Your task to perform on an android device: Open sound settings Image 0: 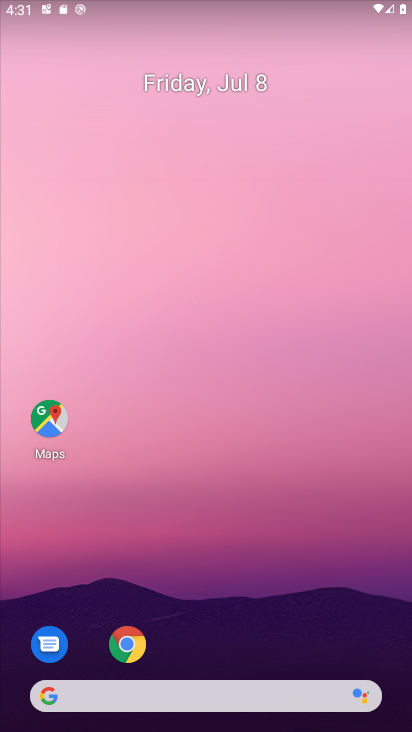
Step 0: drag from (383, 641) to (306, 217)
Your task to perform on an android device: Open sound settings Image 1: 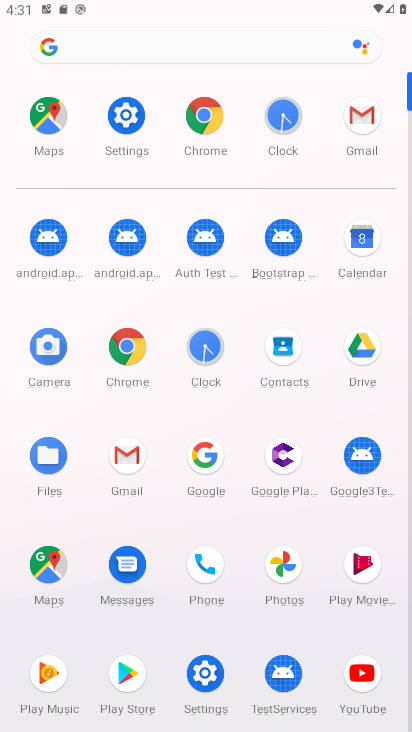
Step 1: click (204, 675)
Your task to perform on an android device: Open sound settings Image 2: 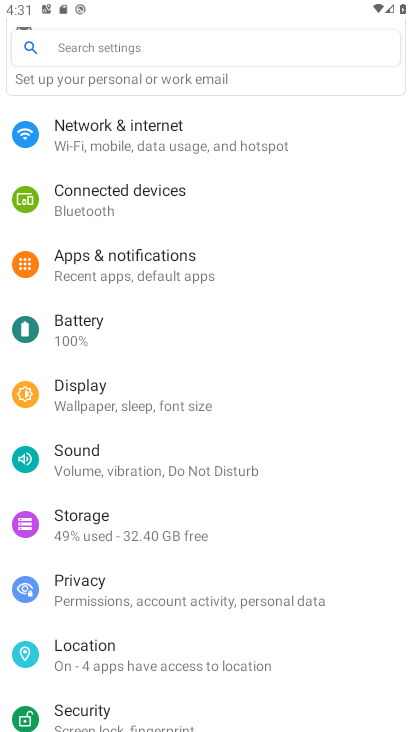
Step 2: click (89, 459)
Your task to perform on an android device: Open sound settings Image 3: 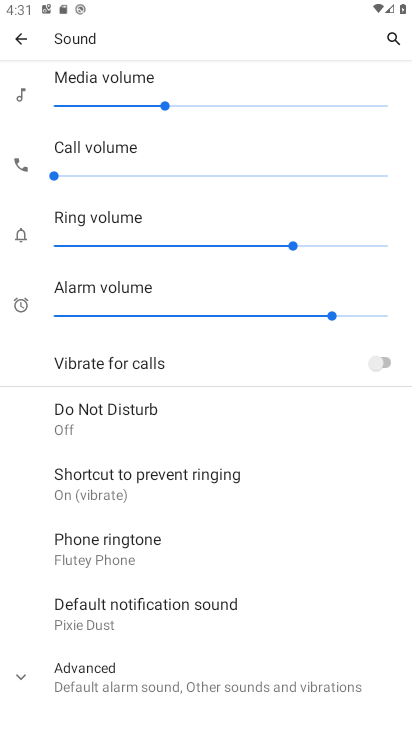
Step 3: click (21, 678)
Your task to perform on an android device: Open sound settings Image 4: 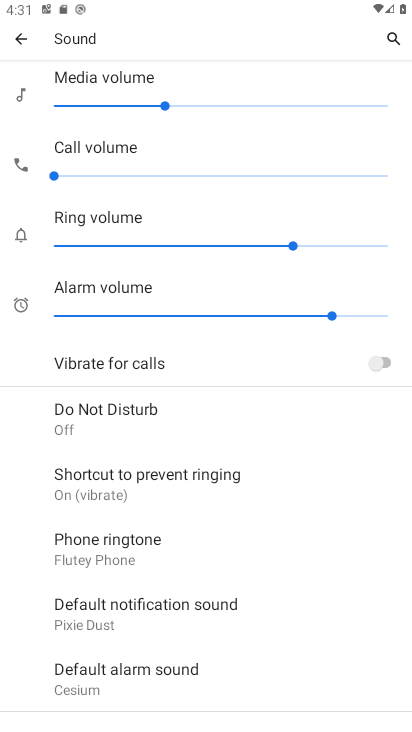
Step 4: task complete